Your task to perform on an android device: When is my next appointment? Image 0: 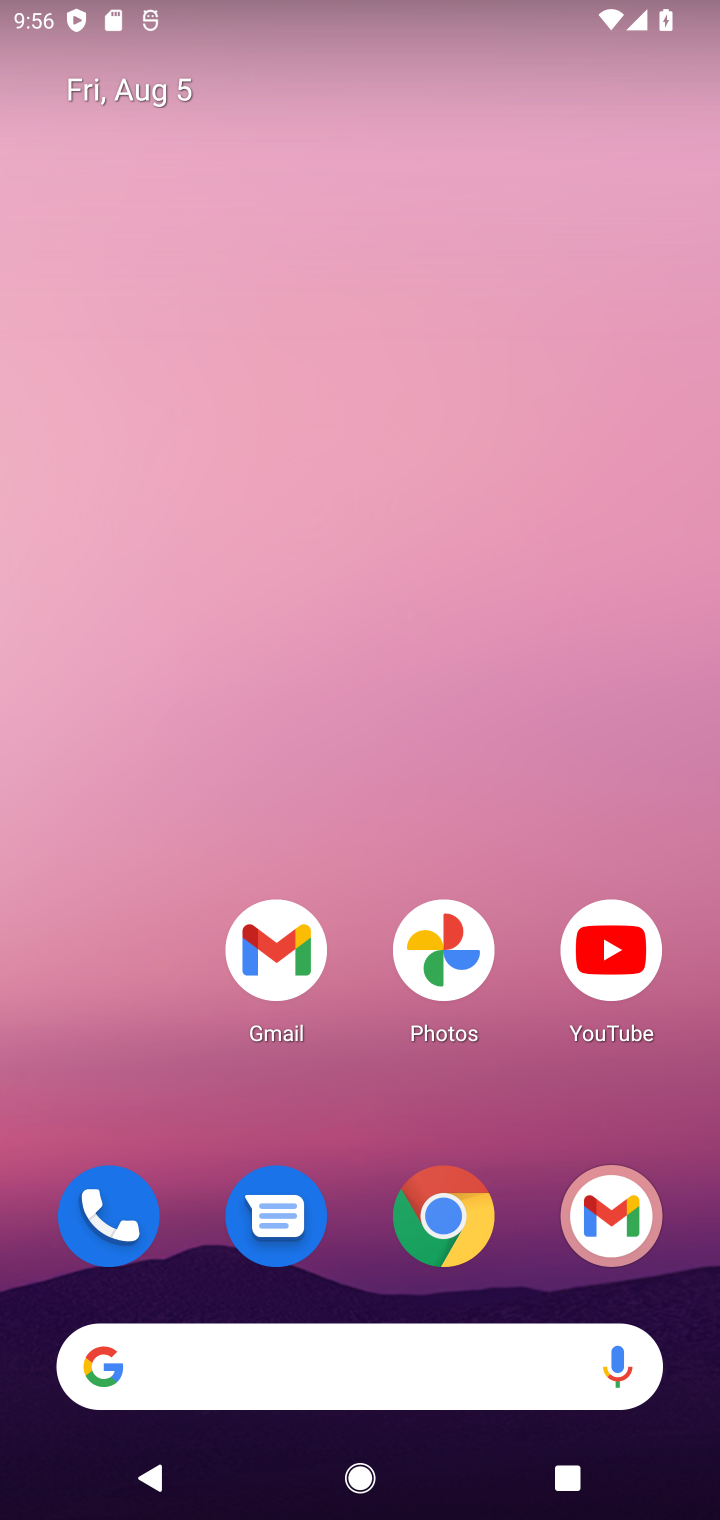
Step 0: drag from (535, 1344) to (402, 120)
Your task to perform on an android device: When is my next appointment? Image 1: 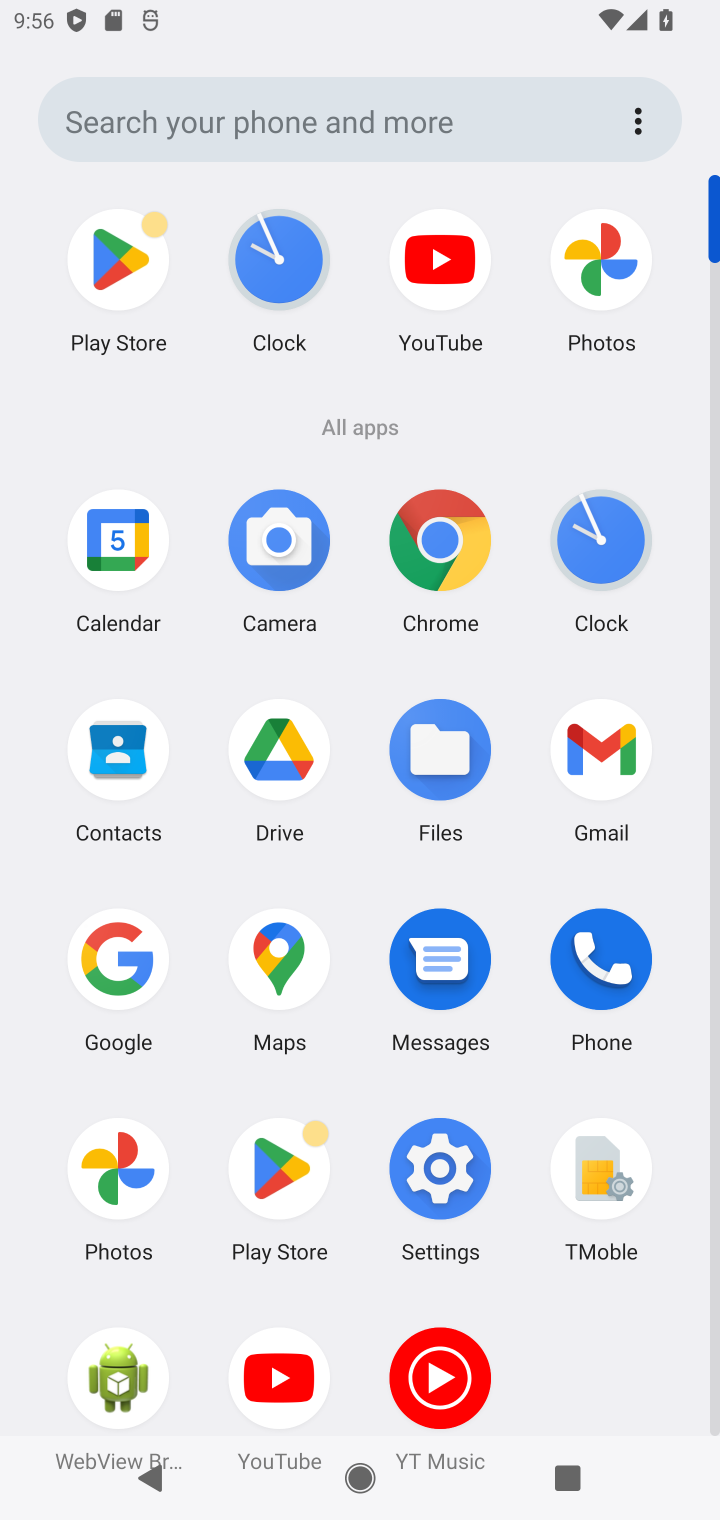
Step 1: click (138, 563)
Your task to perform on an android device: When is my next appointment? Image 2: 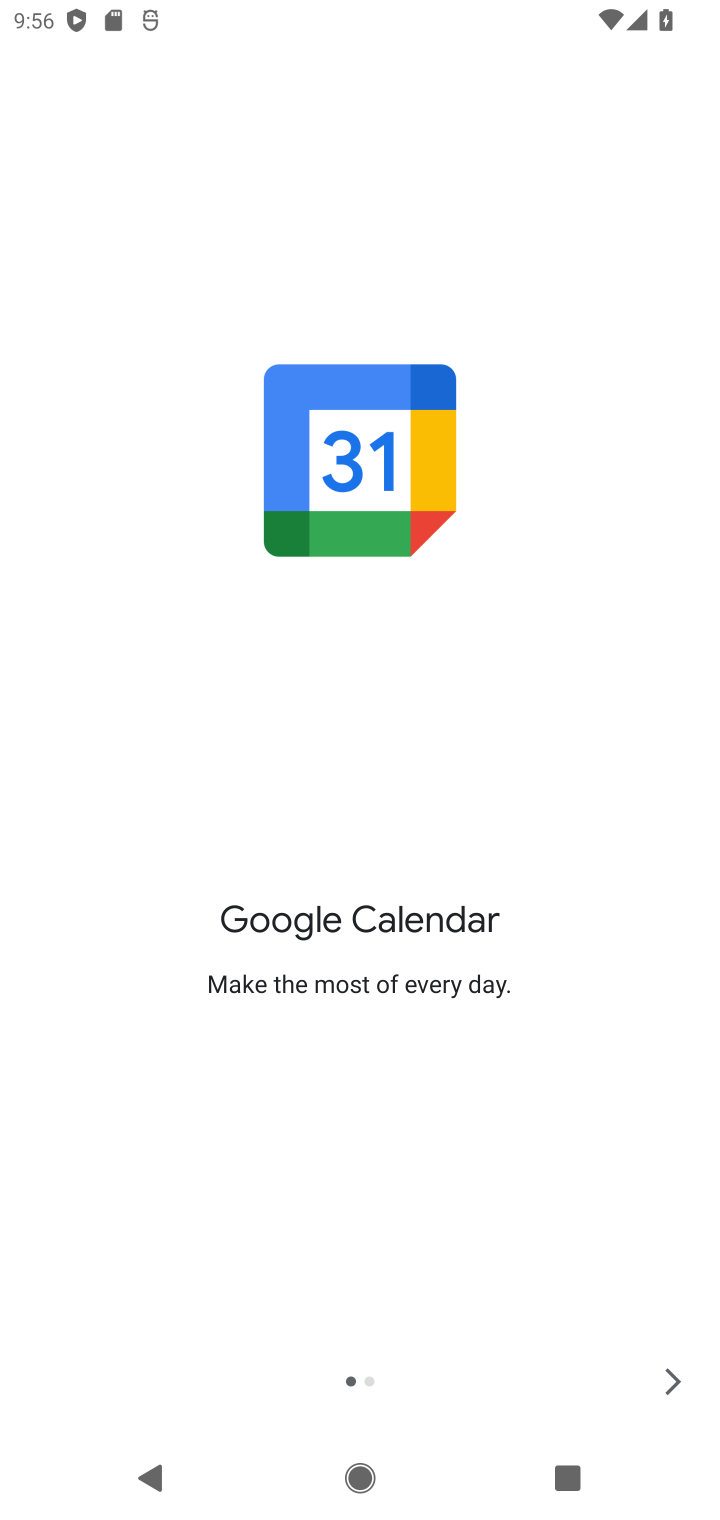
Step 2: click (669, 1366)
Your task to perform on an android device: When is my next appointment? Image 3: 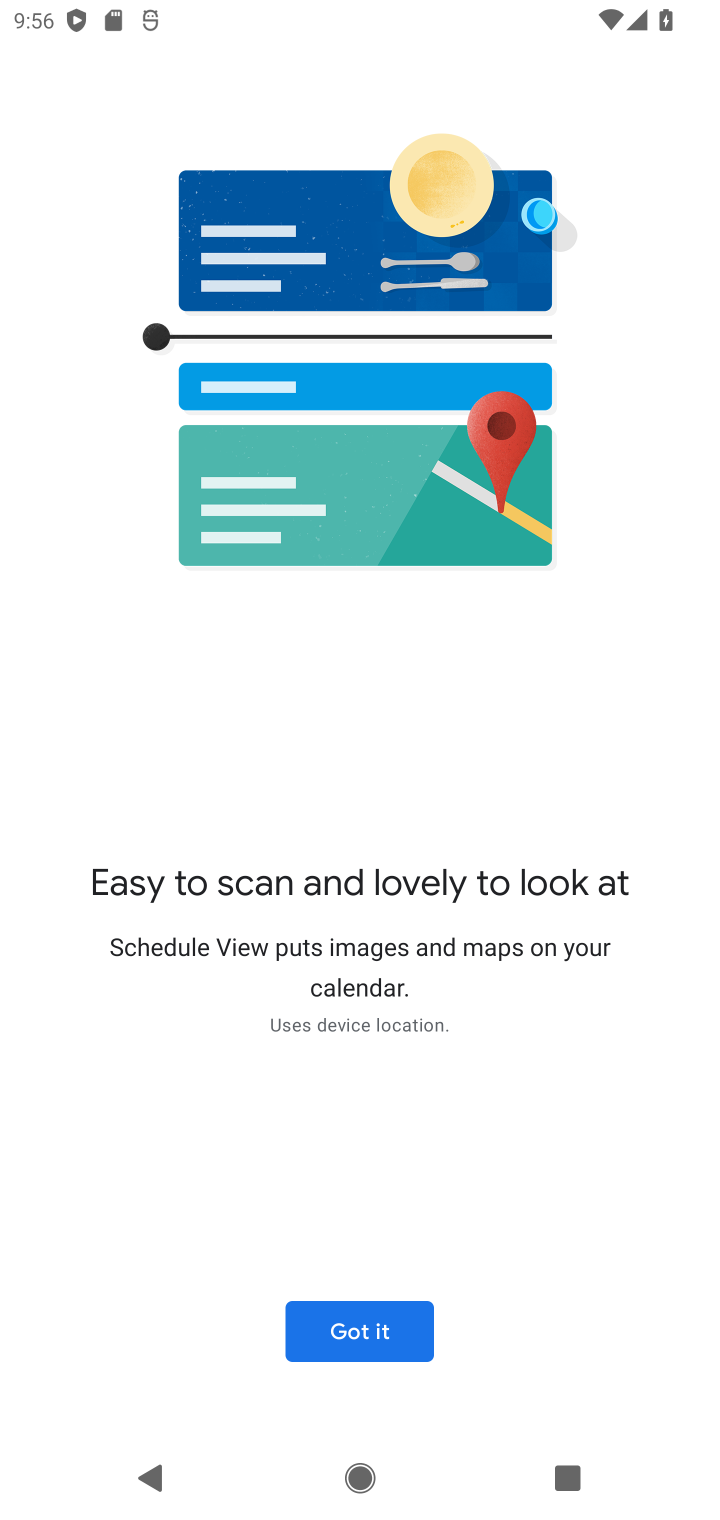
Step 3: click (363, 1343)
Your task to perform on an android device: When is my next appointment? Image 4: 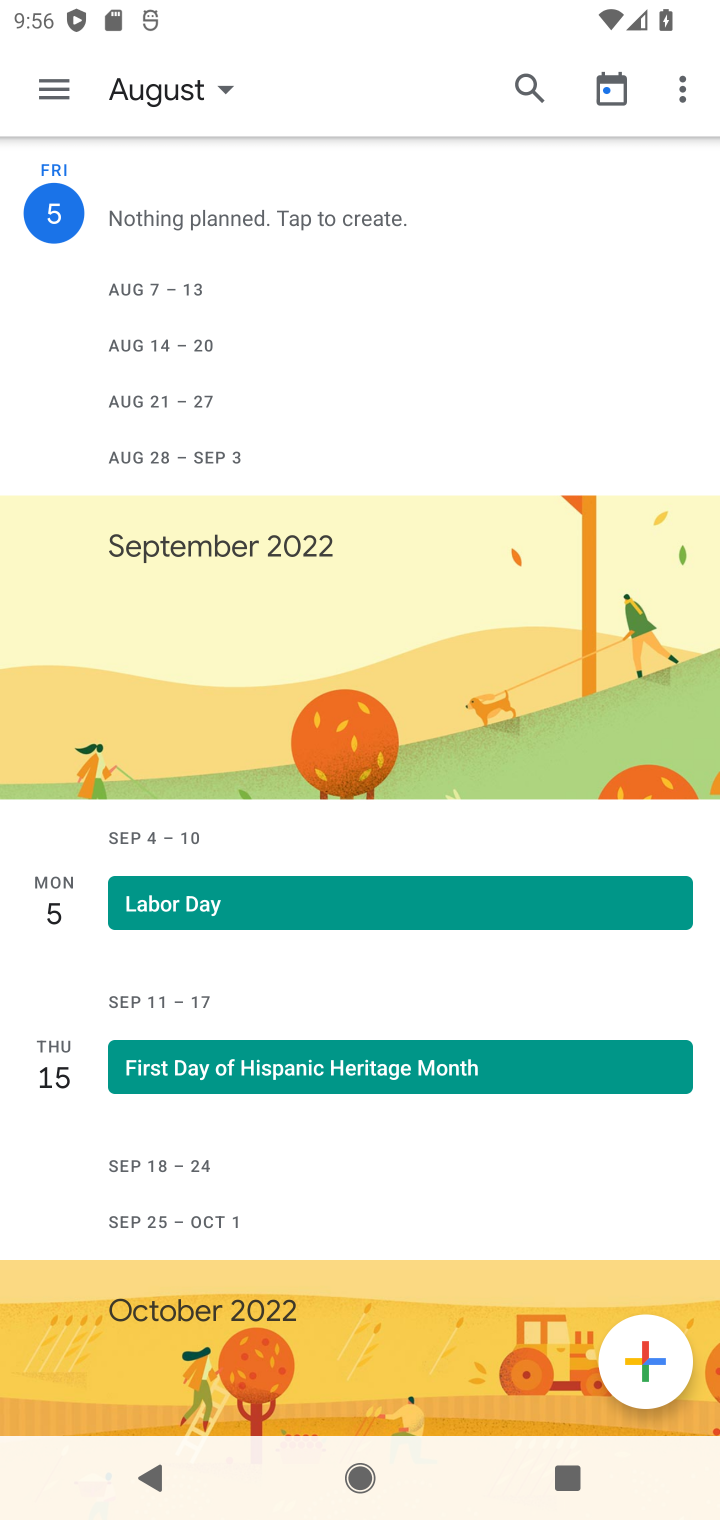
Step 4: click (227, 91)
Your task to perform on an android device: When is my next appointment? Image 5: 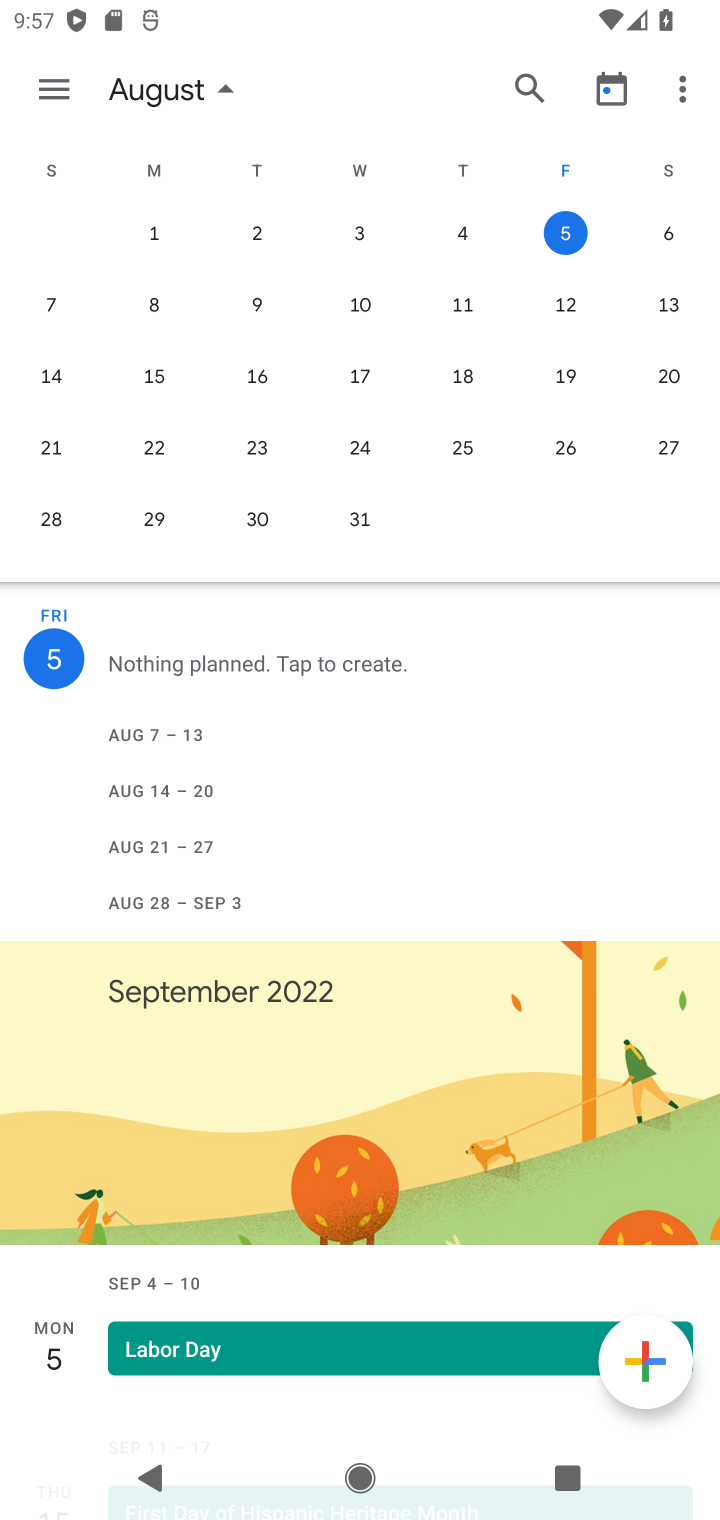
Step 5: click (660, 222)
Your task to perform on an android device: When is my next appointment? Image 6: 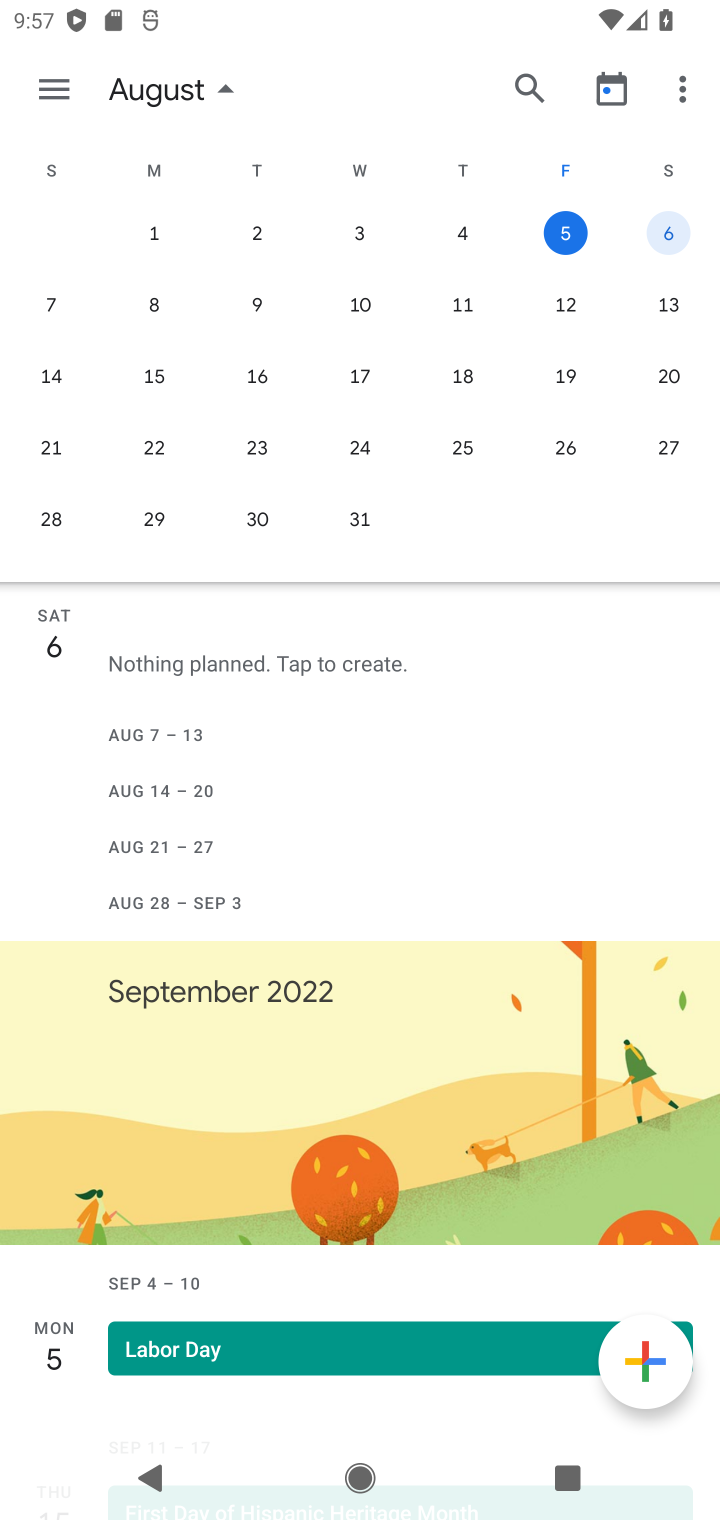
Step 6: task complete